Your task to perform on an android device: Open CNN.com Image 0: 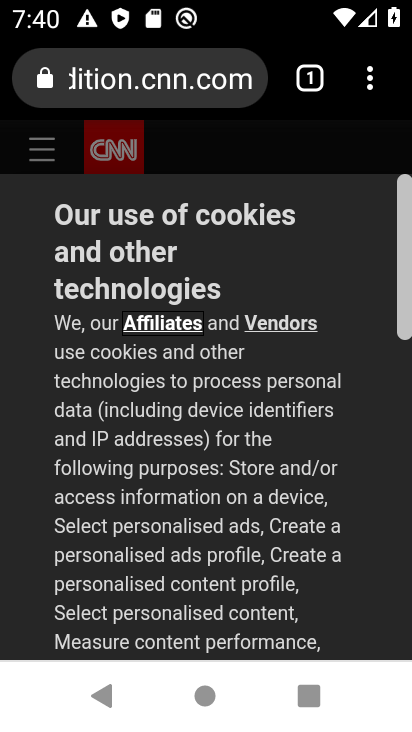
Step 0: task complete